Your task to perform on an android device: Open network settings Image 0: 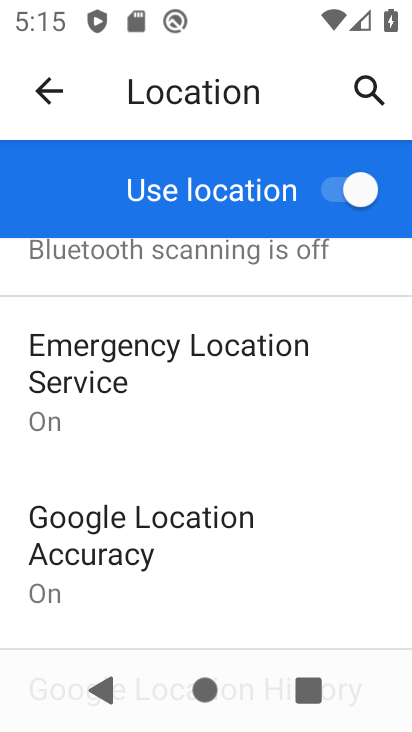
Step 0: press home button
Your task to perform on an android device: Open network settings Image 1: 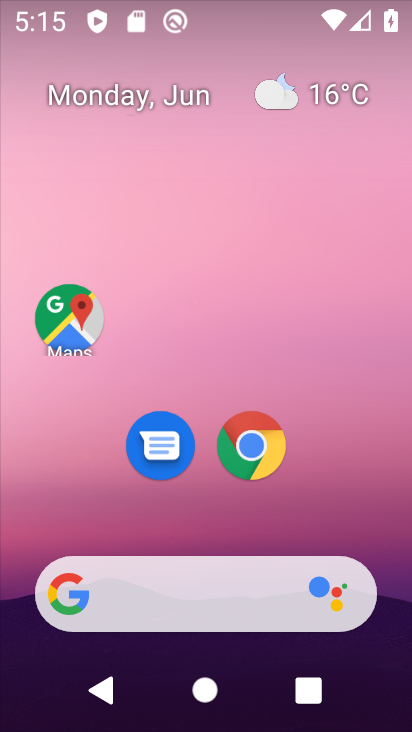
Step 1: drag from (325, 505) to (277, 142)
Your task to perform on an android device: Open network settings Image 2: 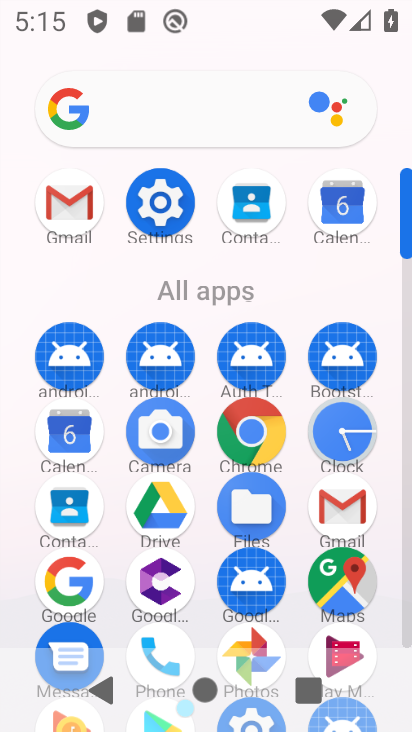
Step 2: click (163, 202)
Your task to perform on an android device: Open network settings Image 3: 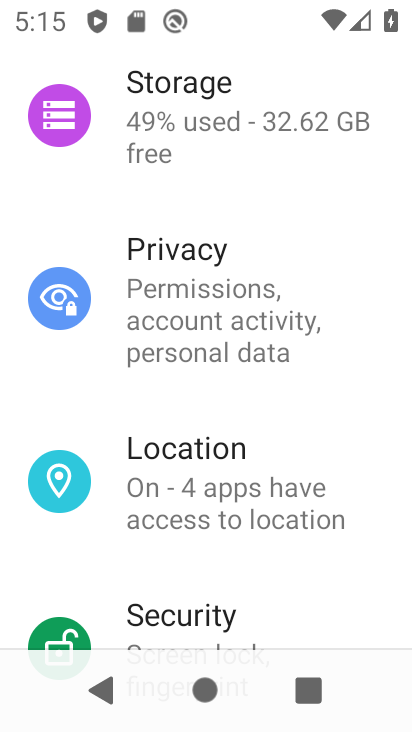
Step 3: drag from (245, 230) to (287, 381)
Your task to perform on an android device: Open network settings Image 4: 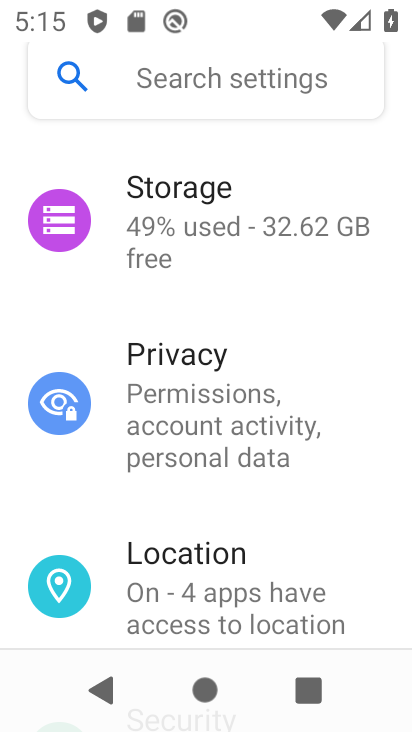
Step 4: drag from (254, 272) to (241, 489)
Your task to perform on an android device: Open network settings Image 5: 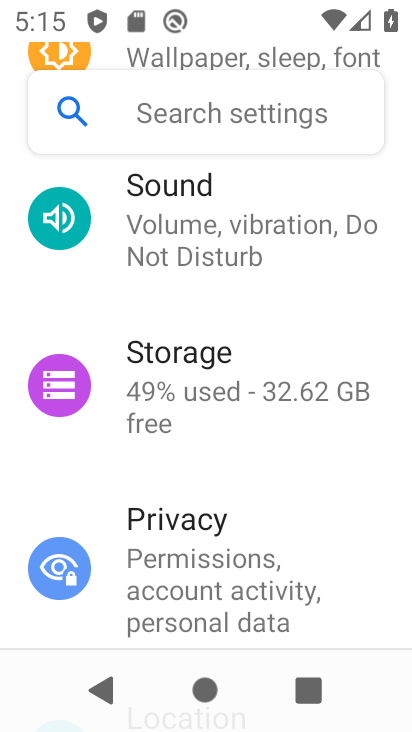
Step 5: drag from (247, 299) to (251, 531)
Your task to perform on an android device: Open network settings Image 6: 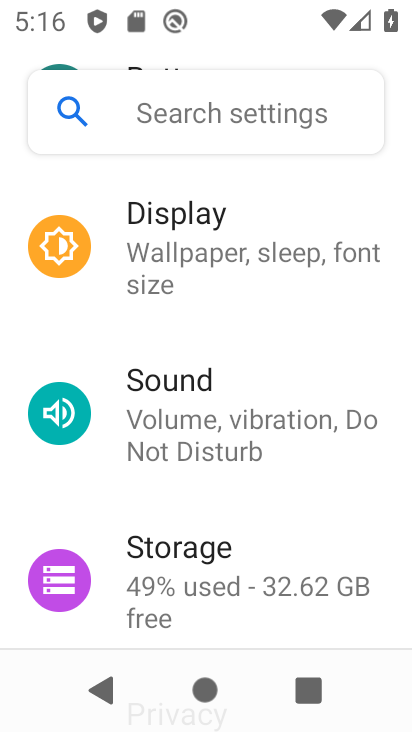
Step 6: drag from (230, 332) to (230, 500)
Your task to perform on an android device: Open network settings Image 7: 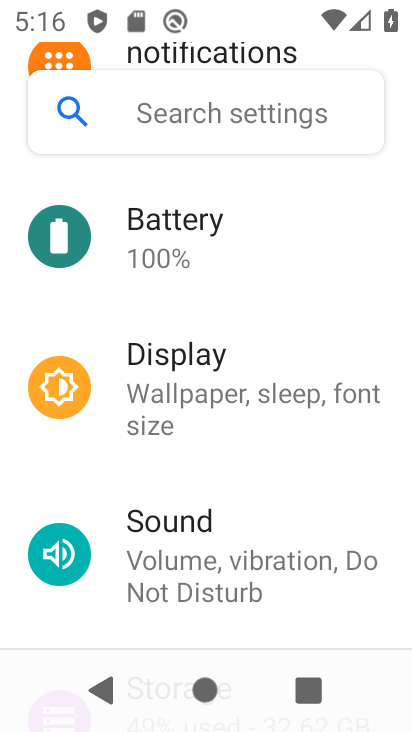
Step 7: drag from (223, 296) to (262, 497)
Your task to perform on an android device: Open network settings Image 8: 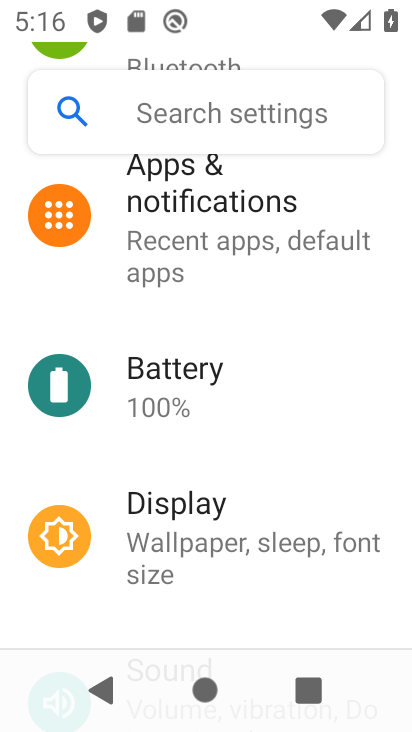
Step 8: drag from (234, 308) to (235, 517)
Your task to perform on an android device: Open network settings Image 9: 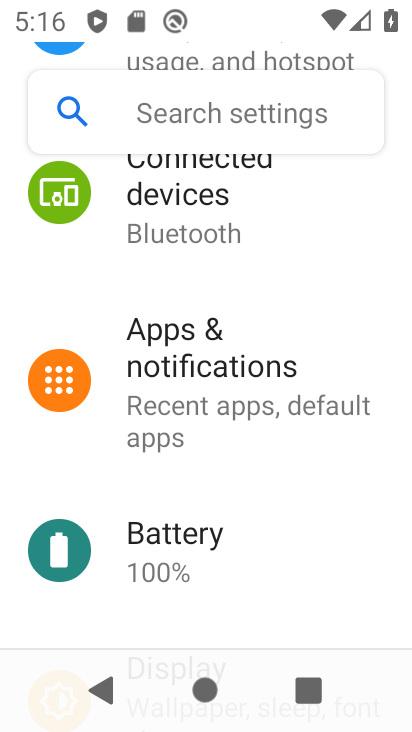
Step 9: drag from (255, 292) to (266, 503)
Your task to perform on an android device: Open network settings Image 10: 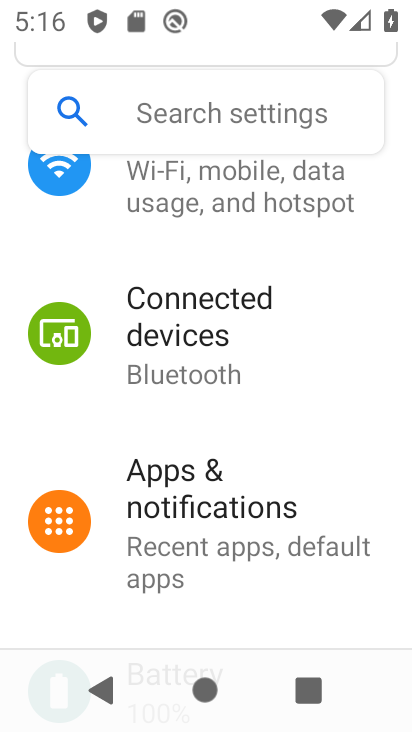
Step 10: drag from (306, 287) to (330, 517)
Your task to perform on an android device: Open network settings Image 11: 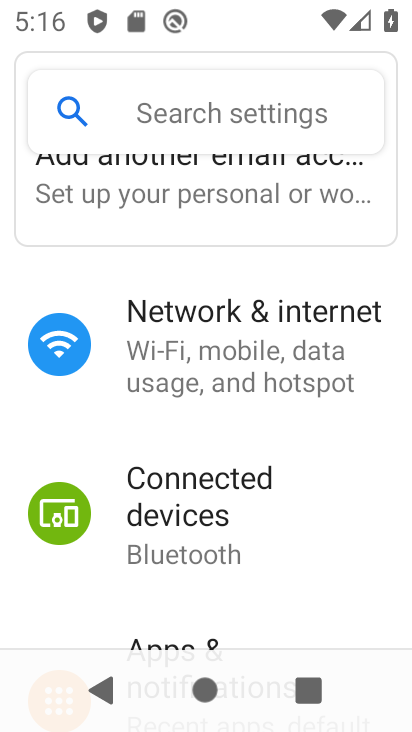
Step 11: click (287, 317)
Your task to perform on an android device: Open network settings Image 12: 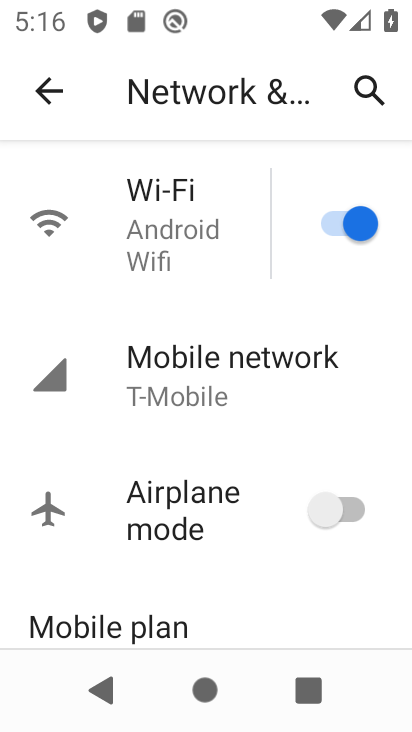
Step 12: click (146, 251)
Your task to perform on an android device: Open network settings Image 13: 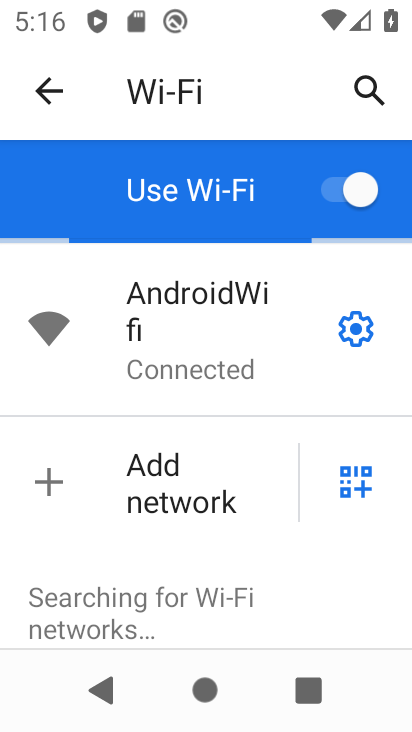
Step 13: task complete